Your task to perform on an android device: Open the phone app and click the voicemail tab. Image 0: 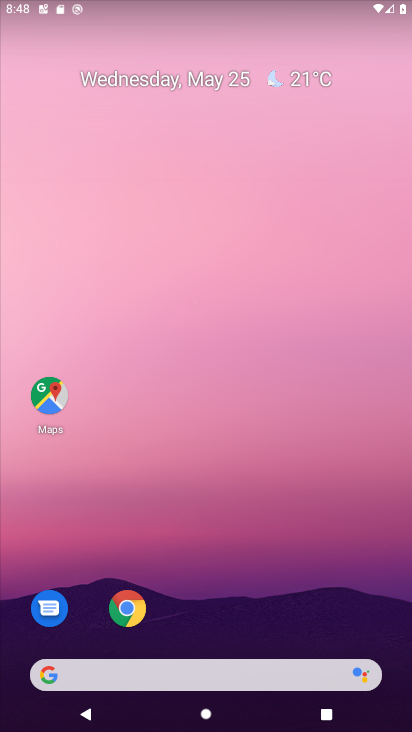
Step 0: drag from (257, 728) to (258, 195)
Your task to perform on an android device: Open the phone app and click the voicemail tab. Image 1: 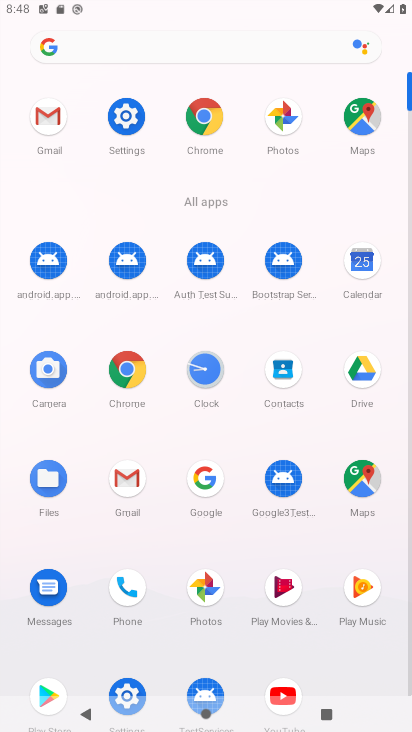
Step 1: click (121, 591)
Your task to perform on an android device: Open the phone app and click the voicemail tab. Image 2: 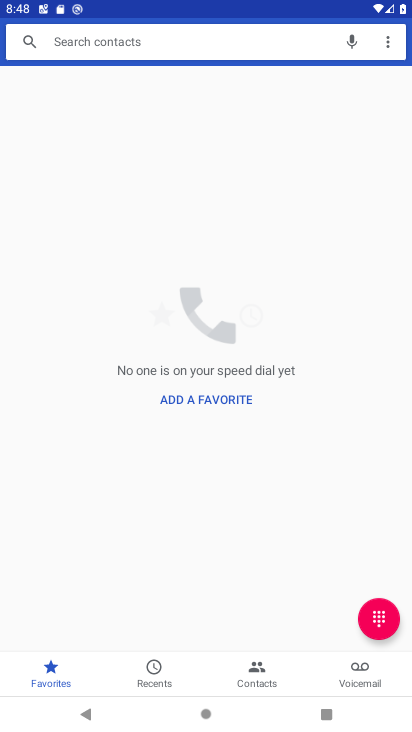
Step 2: click (363, 671)
Your task to perform on an android device: Open the phone app and click the voicemail tab. Image 3: 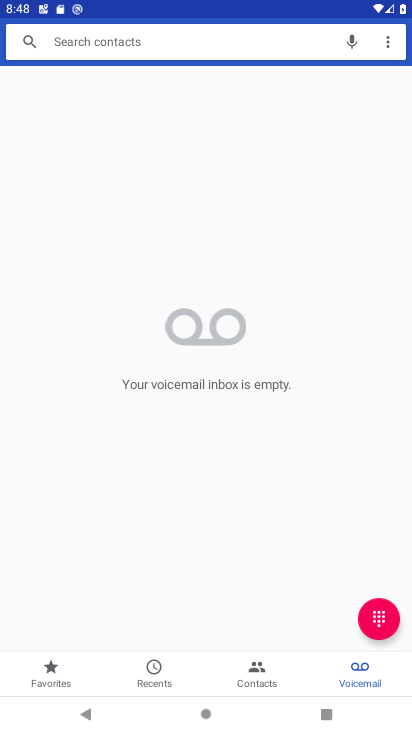
Step 3: task complete